Your task to perform on an android device: check battery use Image 0: 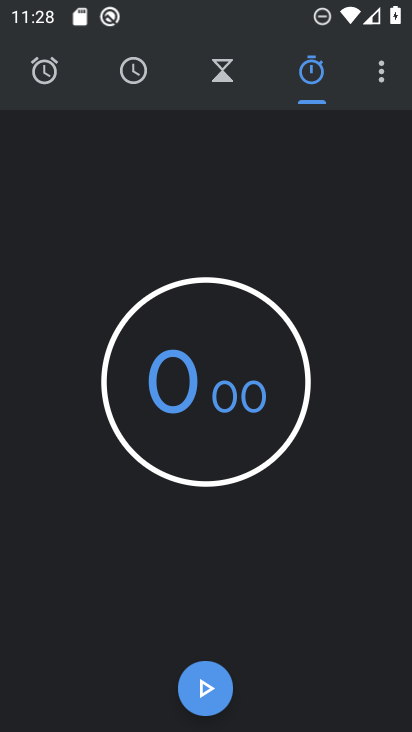
Step 0: press home button
Your task to perform on an android device: check battery use Image 1: 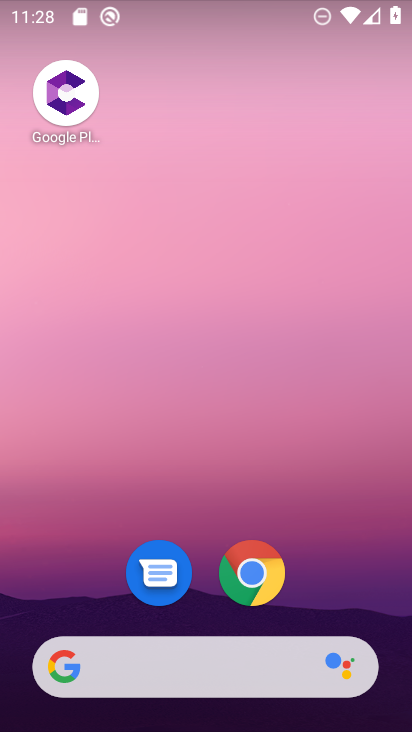
Step 1: drag from (200, 487) to (179, 90)
Your task to perform on an android device: check battery use Image 2: 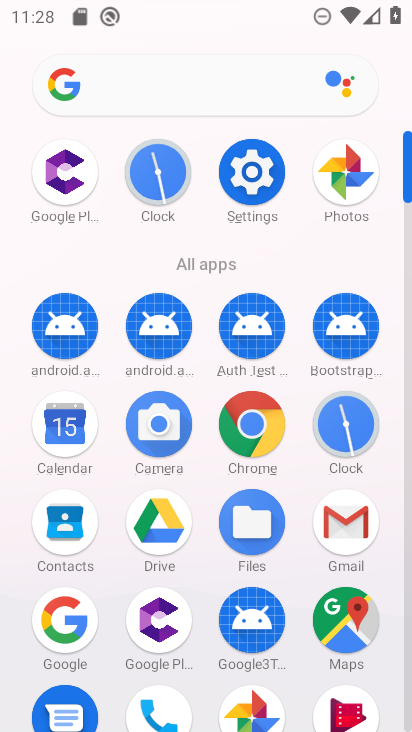
Step 2: click (254, 172)
Your task to perform on an android device: check battery use Image 3: 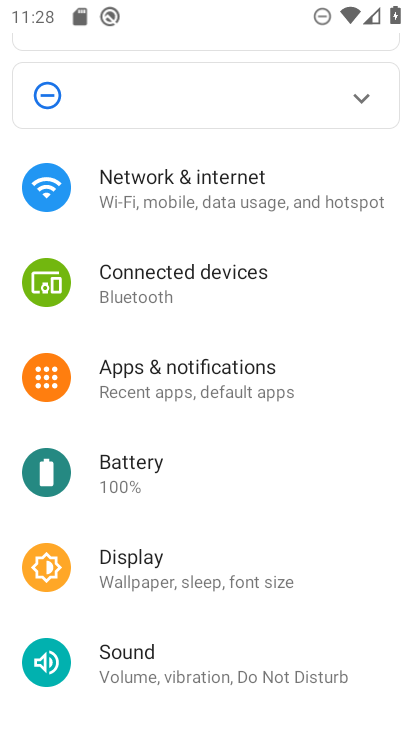
Step 3: click (130, 458)
Your task to perform on an android device: check battery use Image 4: 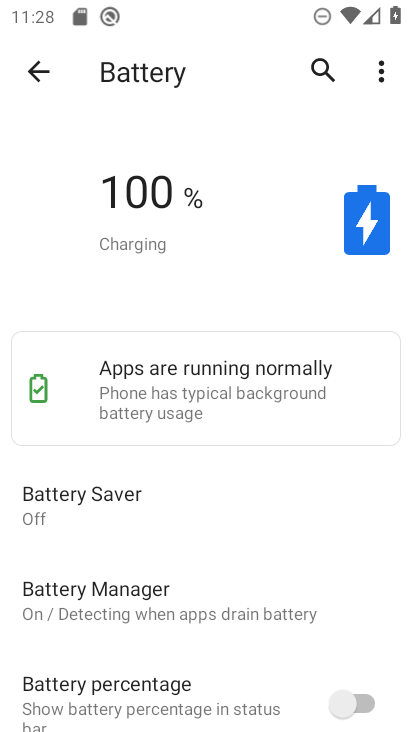
Step 4: task complete